Your task to perform on an android device: snooze an email in the gmail app Image 0: 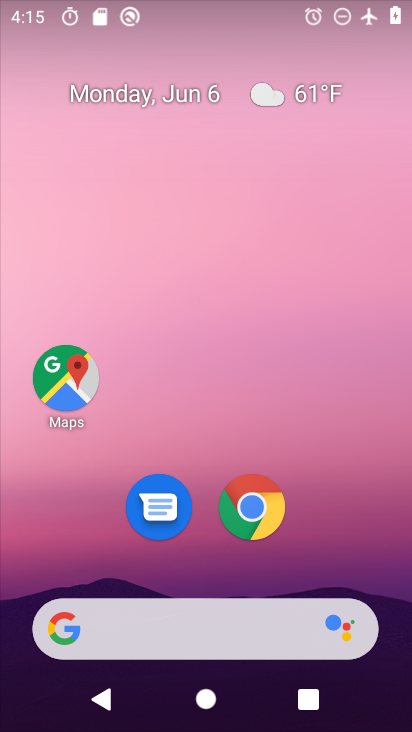
Step 0: drag from (201, 574) to (253, 240)
Your task to perform on an android device: snooze an email in the gmail app Image 1: 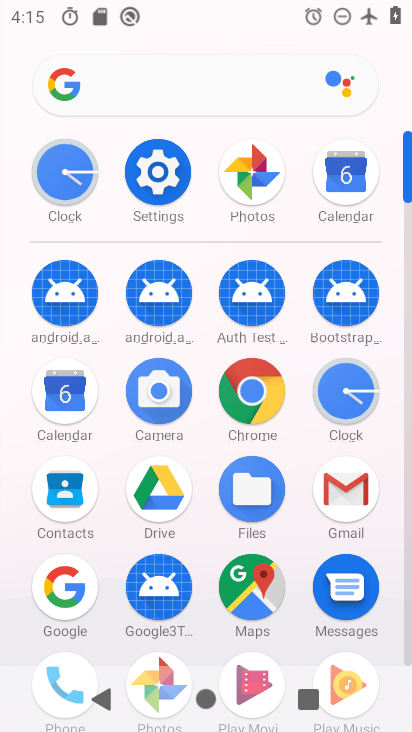
Step 1: click (336, 504)
Your task to perform on an android device: snooze an email in the gmail app Image 2: 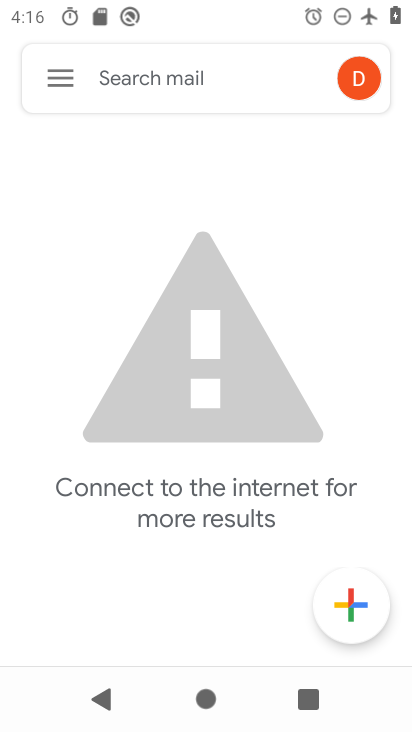
Step 2: press home button
Your task to perform on an android device: snooze an email in the gmail app Image 3: 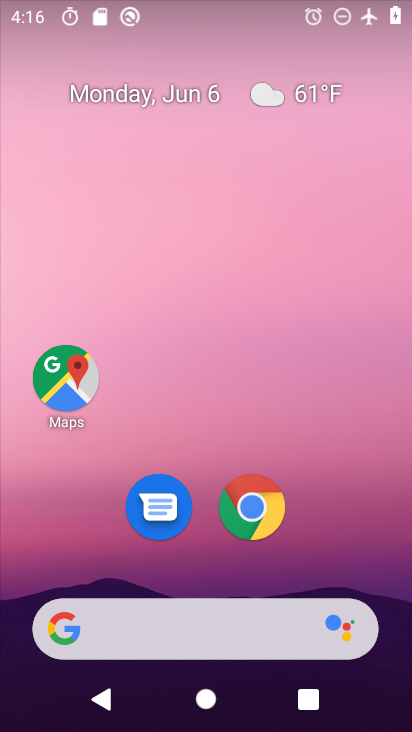
Step 3: drag from (199, 576) to (226, 169)
Your task to perform on an android device: snooze an email in the gmail app Image 4: 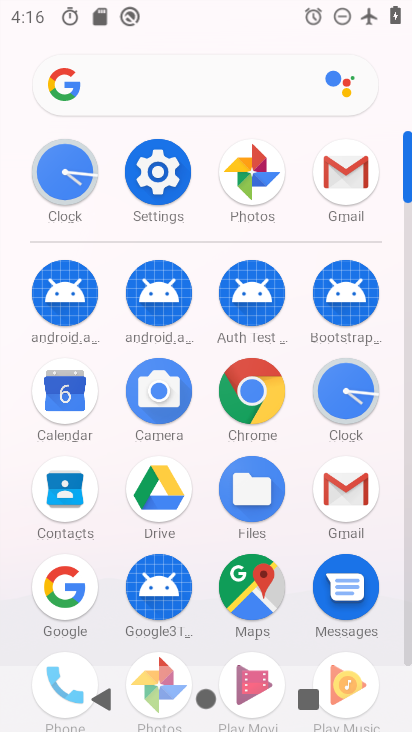
Step 4: click (351, 171)
Your task to perform on an android device: snooze an email in the gmail app Image 5: 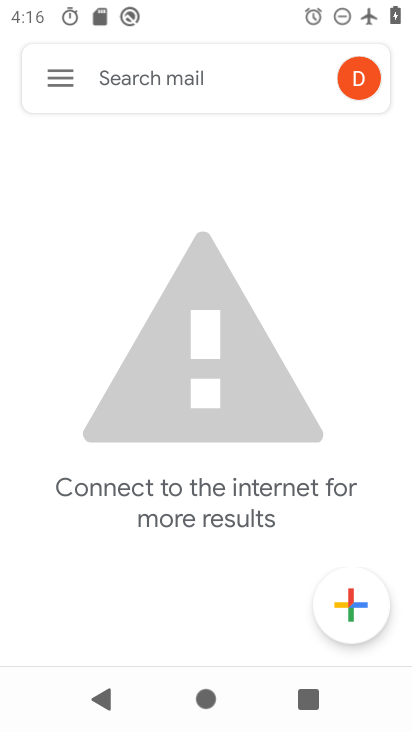
Step 5: click (69, 65)
Your task to perform on an android device: snooze an email in the gmail app Image 6: 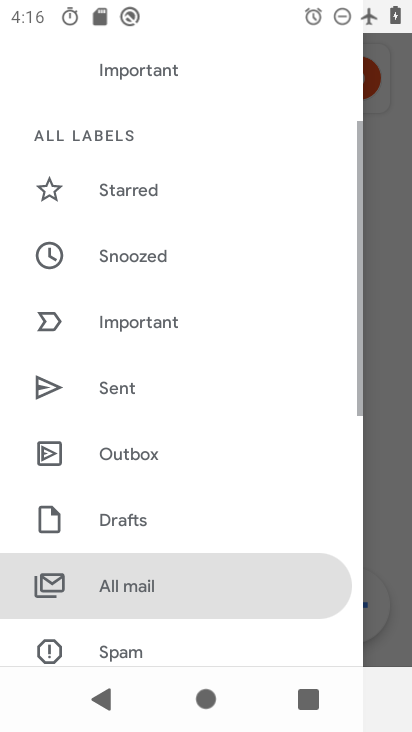
Step 6: click (149, 586)
Your task to perform on an android device: snooze an email in the gmail app Image 7: 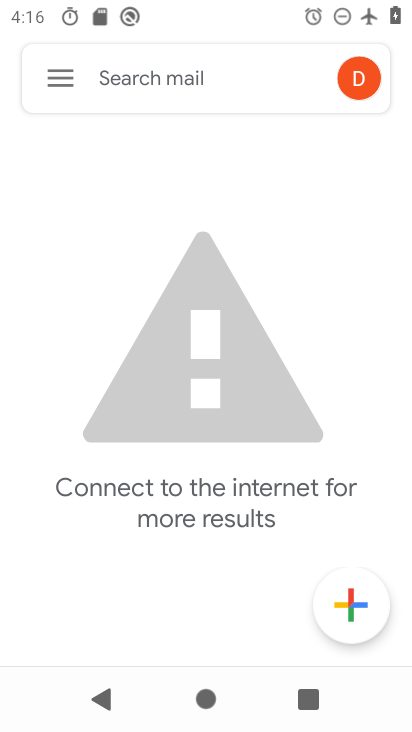
Step 7: click (61, 72)
Your task to perform on an android device: snooze an email in the gmail app Image 8: 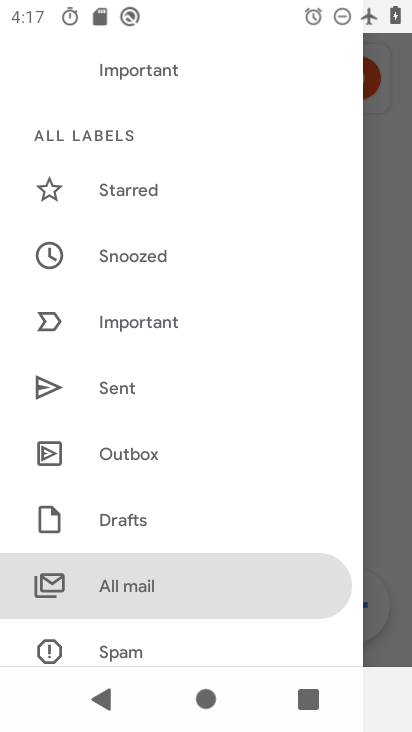
Step 8: drag from (176, 486) to (200, 338)
Your task to perform on an android device: snooze an email in the gmail app Image 9: 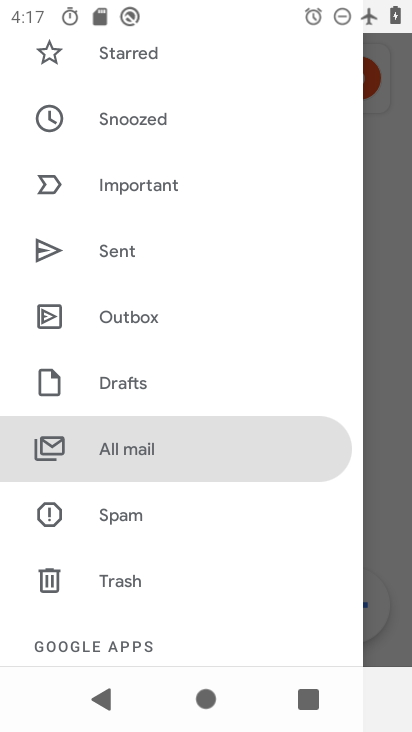
Step 9: click (187, 445)
Your task to perform on an android device: snooze an email in the gmail app Image 10: 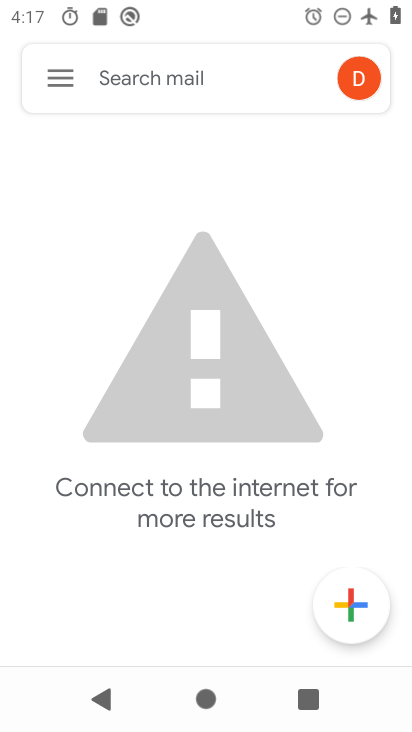
Step 10: task complete